Your task to perform on an android device: Open Maps and search for coffee Image 0: 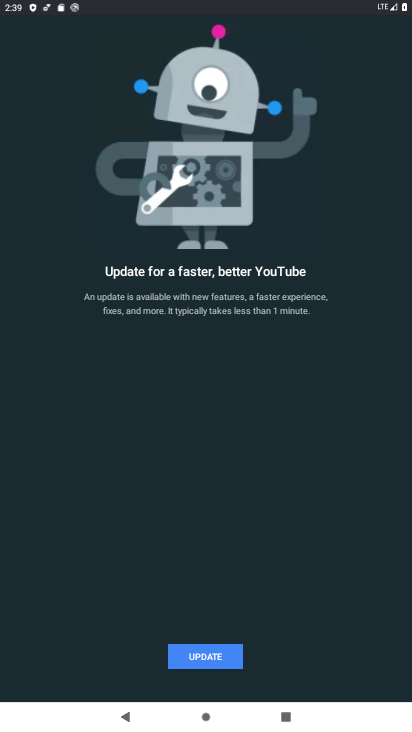
Step 0: press home button
Your task to perform on an android device: Open Maps and search for coffee Image 1: 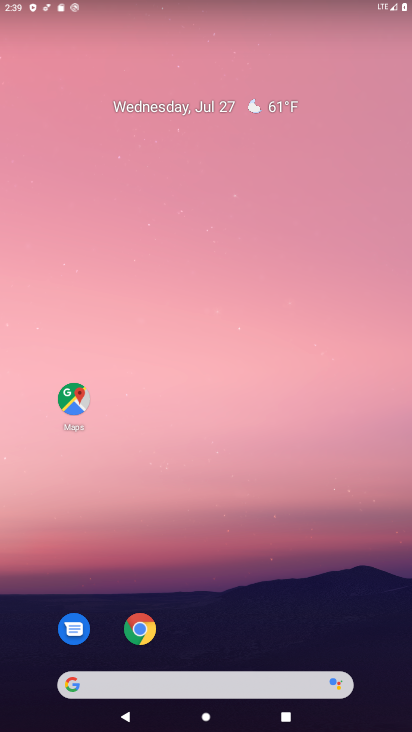
Step 1: click (71, 402)
Your task to perform on an android device: Open Maps and search for coffee Image 2: 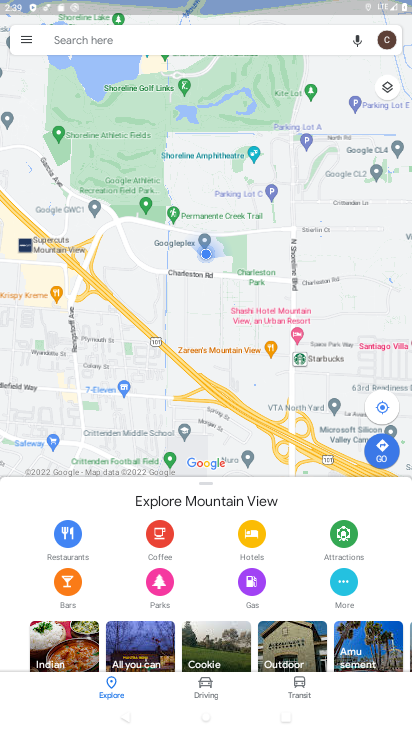
Step 2: click (141, 44)
Your task to perform on an android device: Open Maps and search for coffee Image 3: 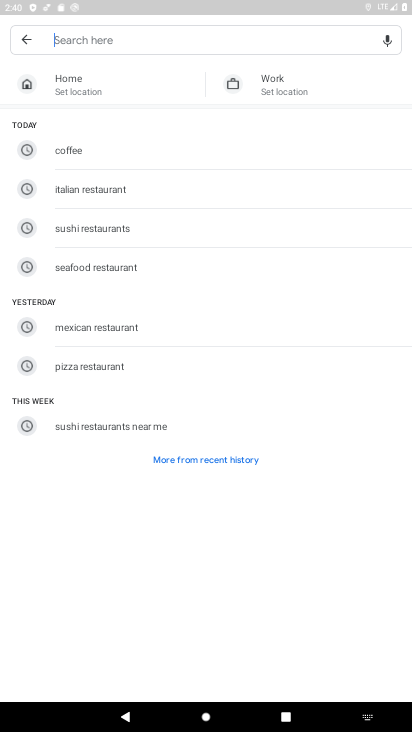
Step 3: type "coffee"
Your task to perform on an android device: Open Maps and search for coffee Image 4: 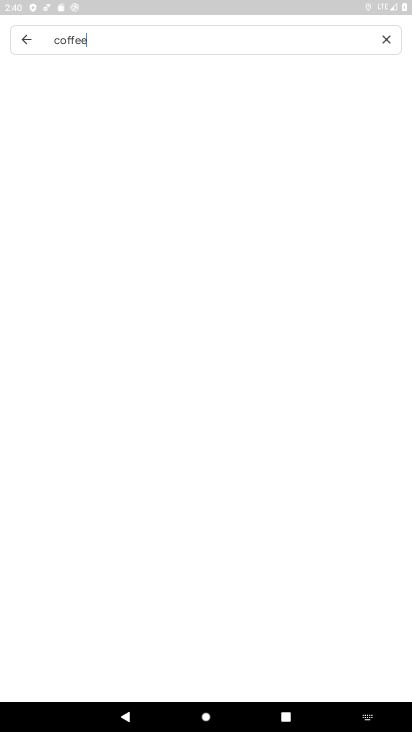
Step 4: type ""
Your task to perform on an android device: Open Maps and search for coffee Image 5: 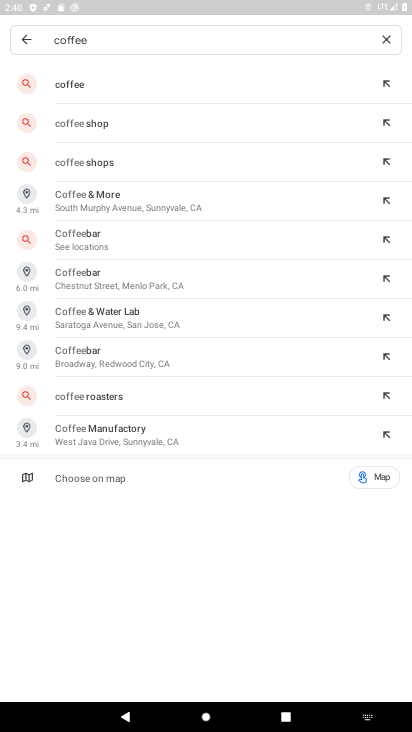
Step 5: click (80, 86)
Your task to perform on an android device: Open Maps and search for coffee Image 6: 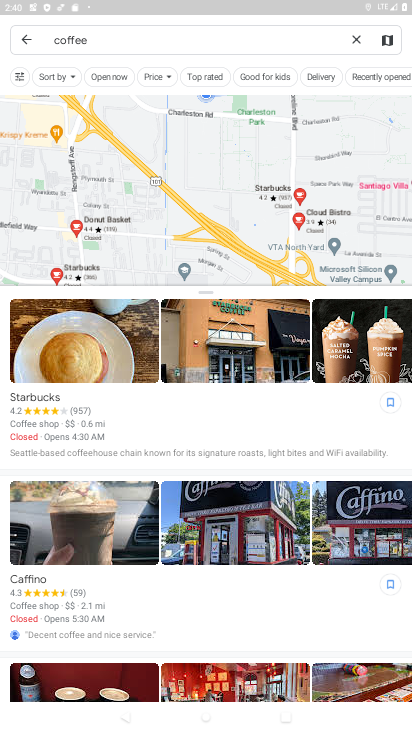
Step 6: task complete